Your task to perform on an android device: Find coffee shops on Maps Image 0: 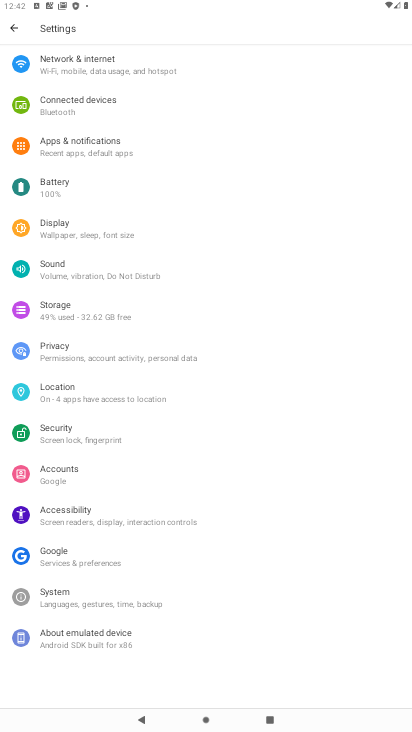
Step 0: press home button
Your task to perform on an android device: Find coffee shops on Maps Image 1: 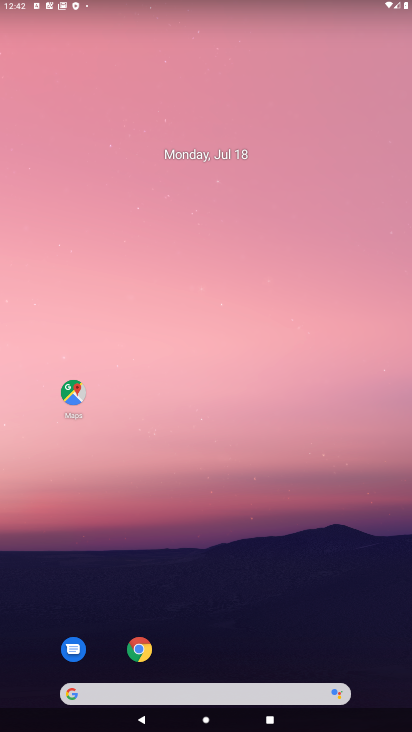
Step 1: click (74, 391)
Your task to perform on an android device: Find coffee shops on Maps Image 2: 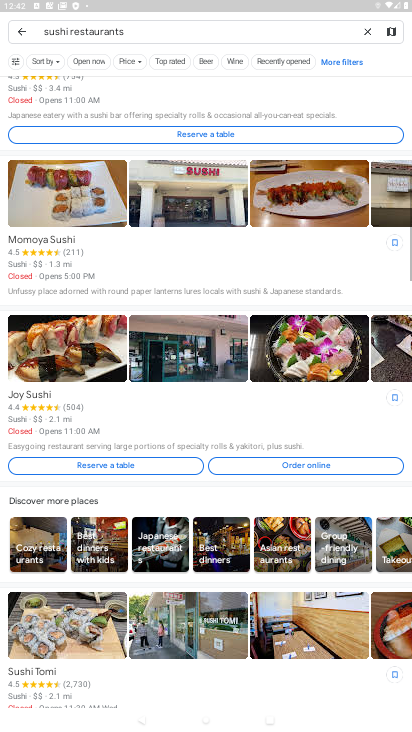
Step 2: click (363, 29)
Your task to perform on an android device: Find coffee shops on Maps Image 3: 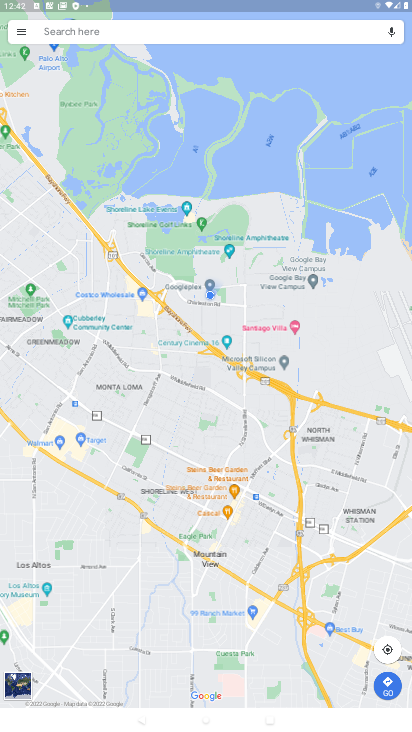
Step 3: click (162, 31)
Your task to perform on an android device: Find coffee shops on Maps Image 4: 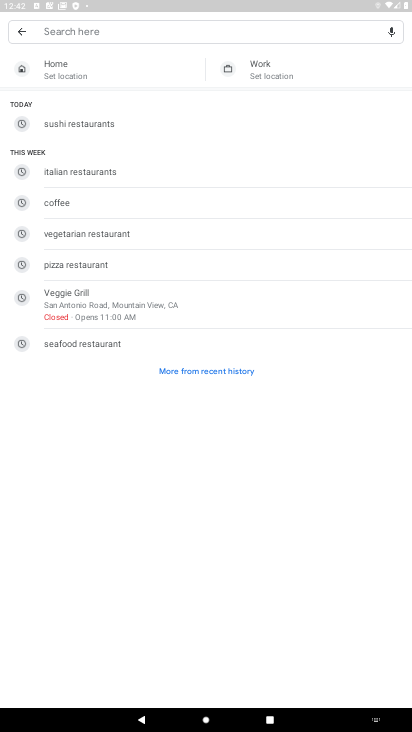
Step 4: type "coffee shop"
Your task to perform on an android device: Find coffee shops on Maps Image 5: 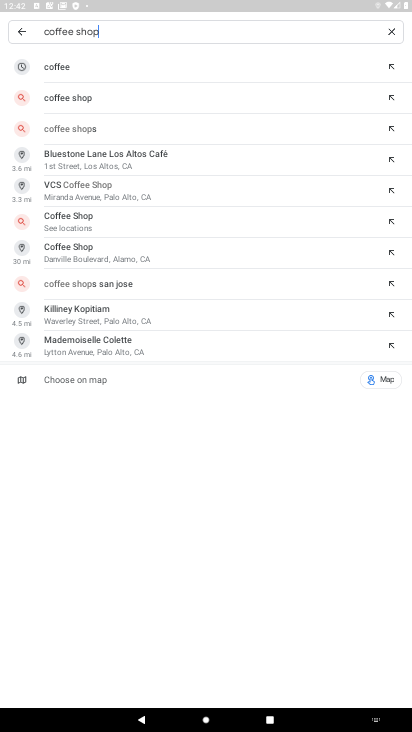
Step 5: click (77, 94)
Your task to perform on an android device: Find coffee shops on Maps Image 6: 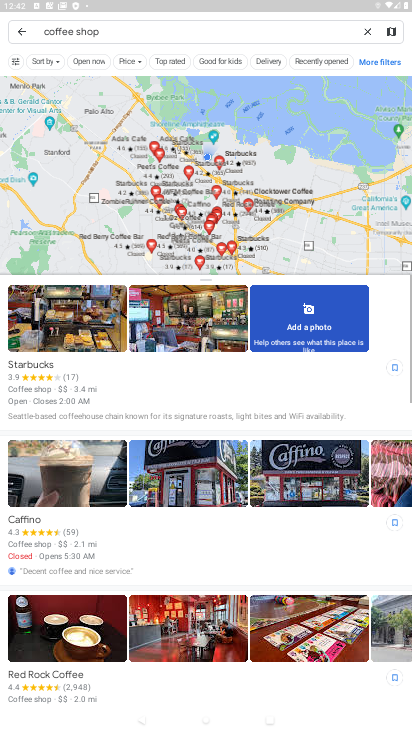
Step 6: task complete